Your task to perform on an android device: Clear the cart on amazon. Search for "lenovo thinkpad" on amazon, select the first entry, add it to the cart, then select checkout. Image 0: 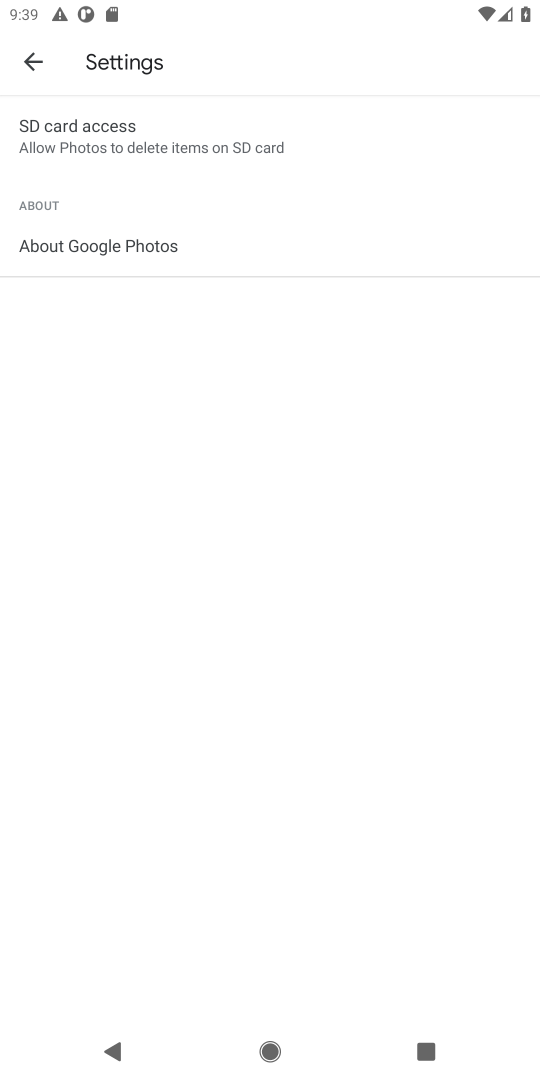
Step 0: press home button
Your task to perform on an android device: Clear the cart on amazon. Search for "lenovo thinkpad" on amazon, select the first entry, add it to the cart, then select checkout. Image 1: 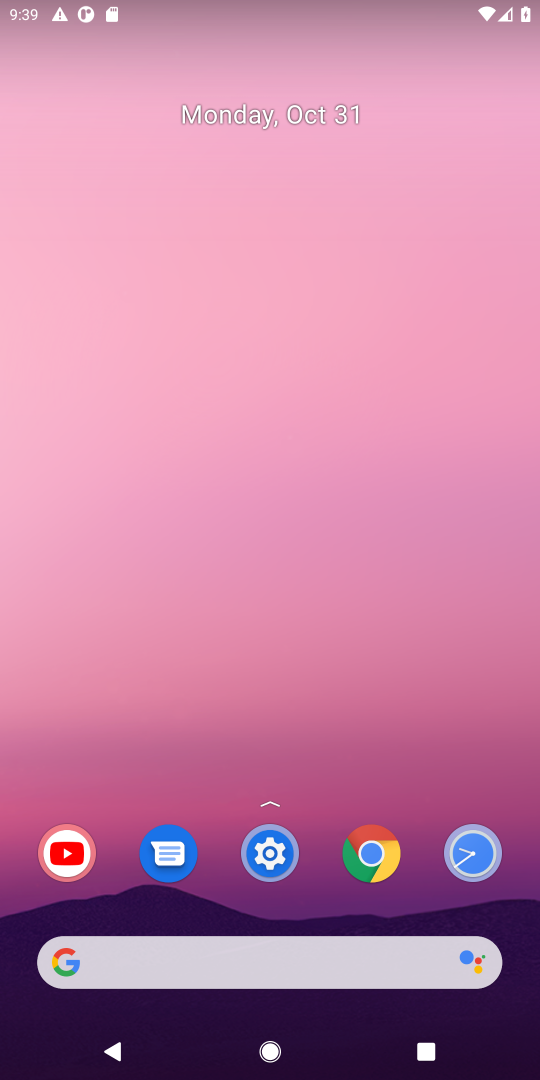
Step 1: click (384, 952)
Your task to perform on an android device: Clear the cart on amazon. Search for "lenovo thinkpad" on amazon, select the first entry, add it to the cart, then select checkout. Image 2: 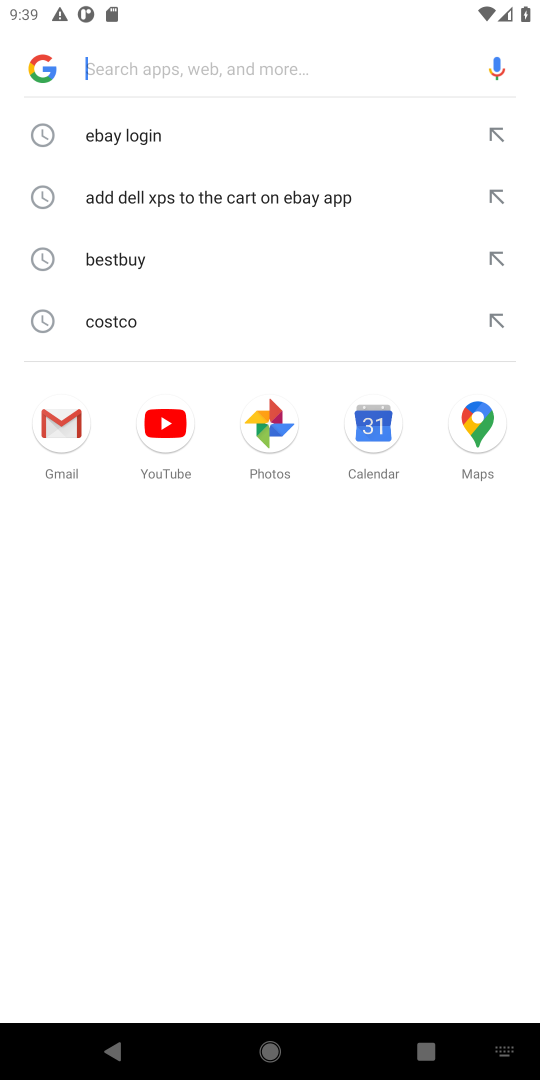
Step 2: type "amazon"
Your task to perform on an android device: Clear the cart on amazon. Search for "lenovo thinkpad" on amazon, select the first entry, add it to the cart, then select checkout. Image 3: 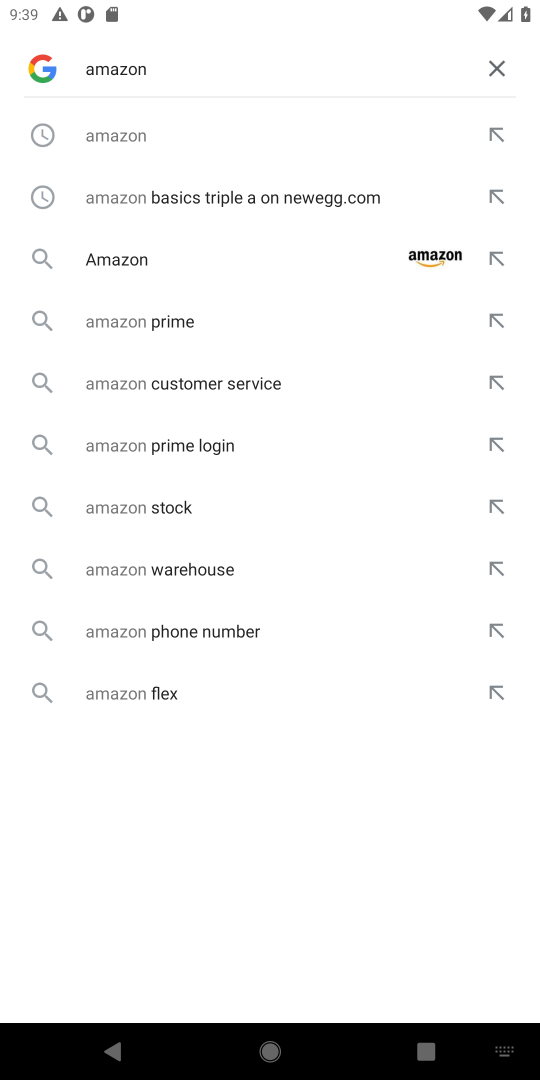
Step 3: click (112, 138)
Your task to perform on an android device: Clear the cart on amazon. Search for "lenovo thinkpad" on amazon, select the first entry, add it to the cart, then select checkout. Image 4: 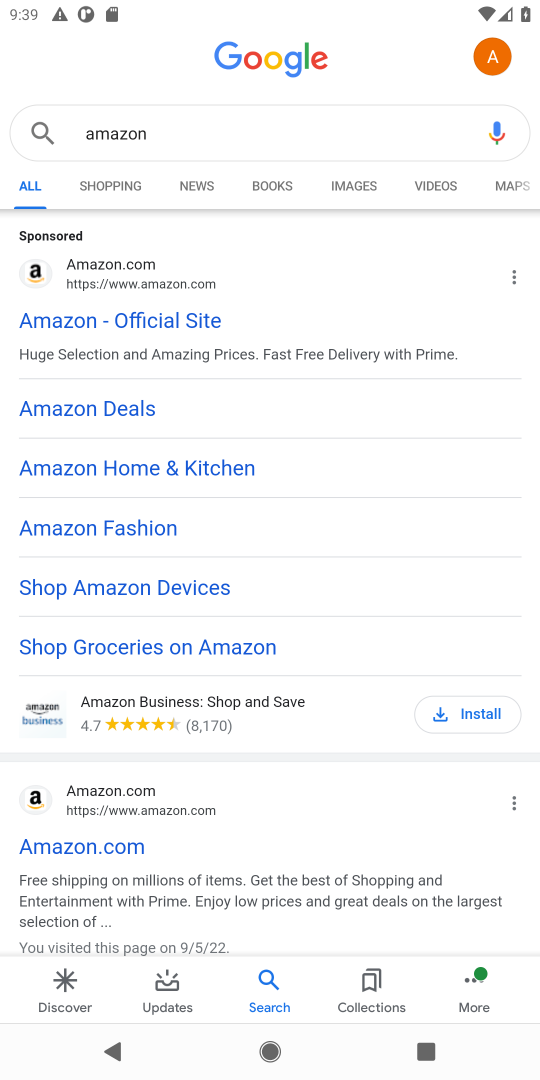
Step 4: click (82, 323)
Your task to perform on an android device: Clear the cart on amazon. Search for "lenovo thinkpad" on amazon, select the first entry, add it to the cart, then select checkout. Image 5: 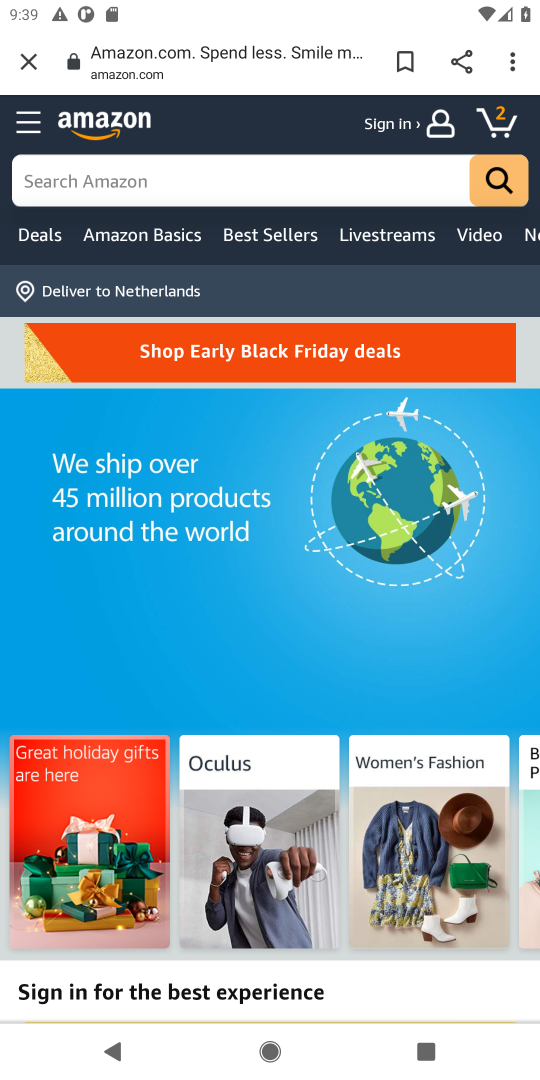
Step 5: click (500, 117)
Your task to perform on an android device: Clear the cart on amazon. Search for "lenovo thinkpad" on amazon, select the first entry, add it to the cart, then select checkout. Image 6: 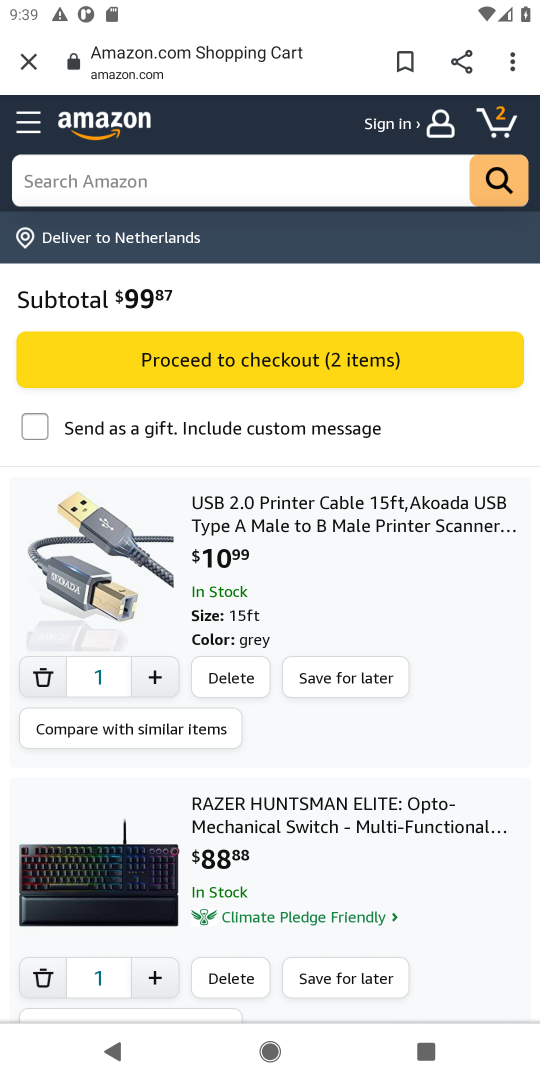
Step 6: click (42, 670)
Your task to perform on an android device: Clear the cart on amazon. Search for "lenovo thinkpad" on amazon, select the first entry, add it to the cart, then select checkout. Image 7: 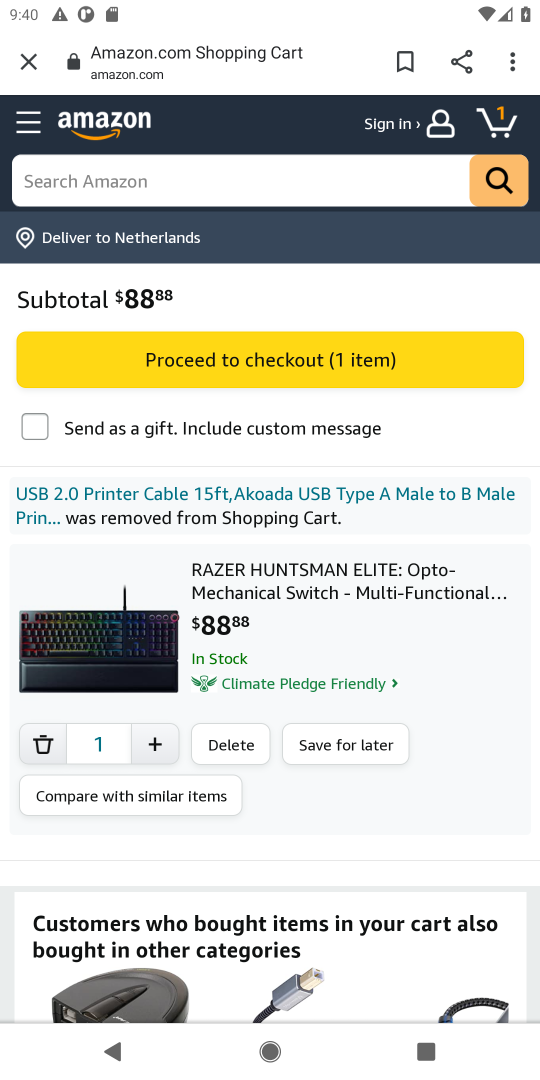
Step 7: click (37, 742)
Your task to perform on an android device: Clear the cart on amazon. Search for "lenovo thinkpad" on amazon, select the first entry, add it to the cart, then select checkout. Image 8: 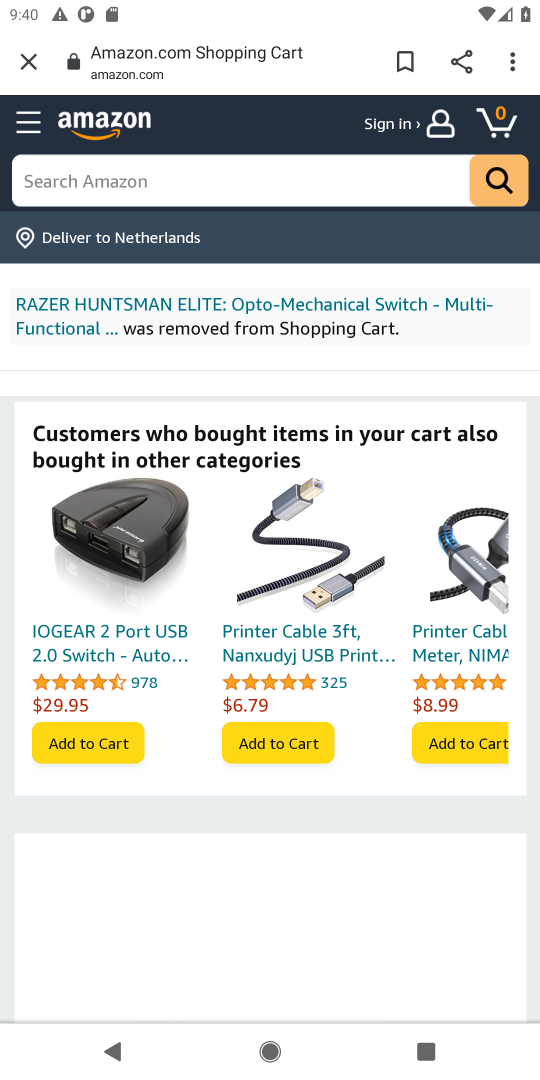
Step 8: click (198, 165)
Your task to perform on an android device: Clear the cart on amazon. Search for "lenovo thinkpad" on amazon, select the first entry, add it to the cart, then select checkout. Image 9: 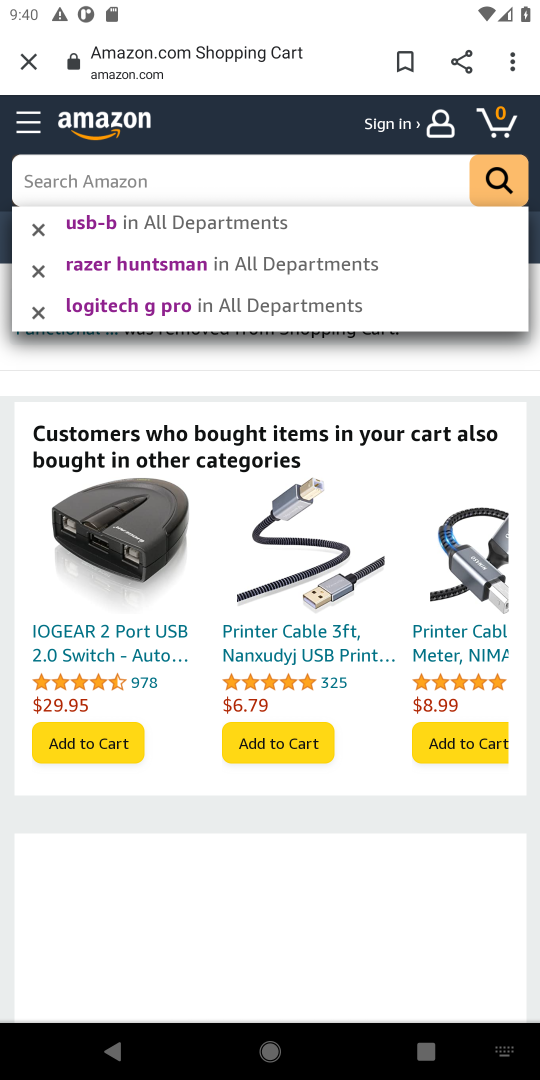
Step 9: type "lenovo thinkpad"
Your task to perform on an android device: Clear the cart on amazon. Search for "lenovo thinkpad" on amazon, select the first entry, add it to the cart, then select checkout. Image 10: 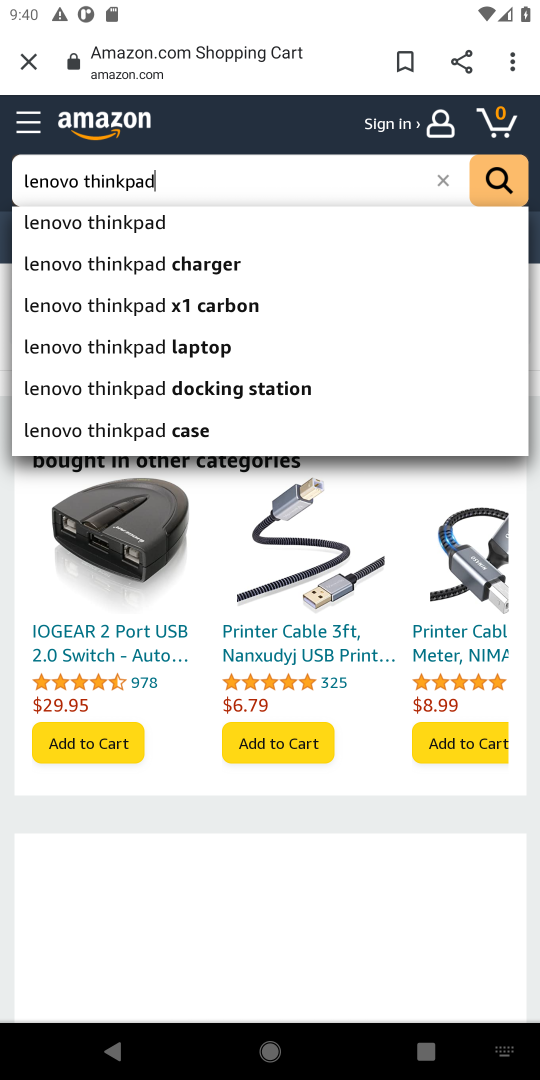
Step 10: click (117, 217)
Your task to perform on an android device: Clear the cart on amazon. Search for "lenovo thinkpad" on amazon, select the first entry, add it to the cart, then select checkout. Image 11: 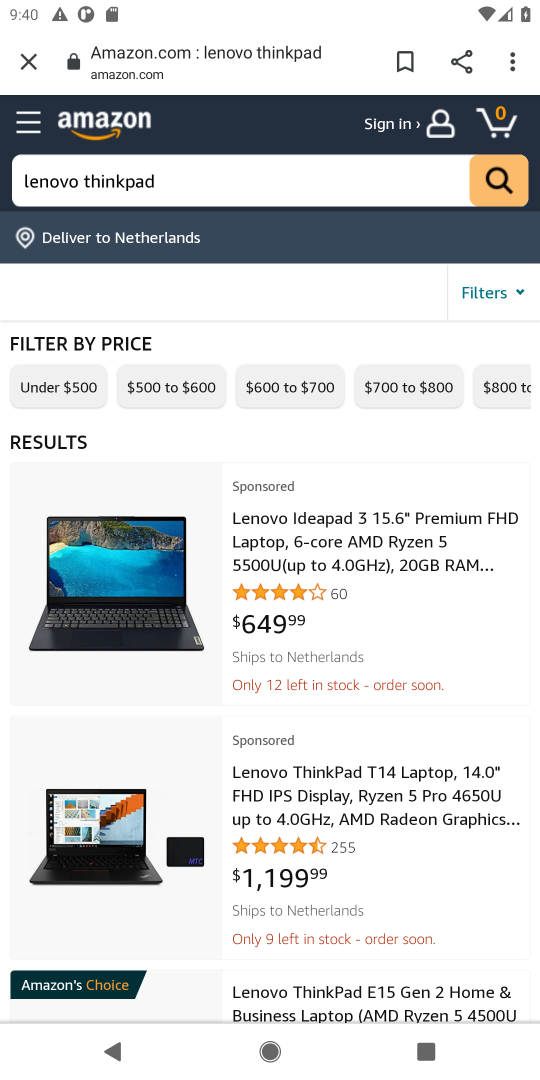
Step 11: click (355, 544)
Your task to perform on an android device: Clear the cart on amazon. Search for "lenovo thinkpad" on amazon, select the first entry, add it to the cart, then select checkout. Image 12: 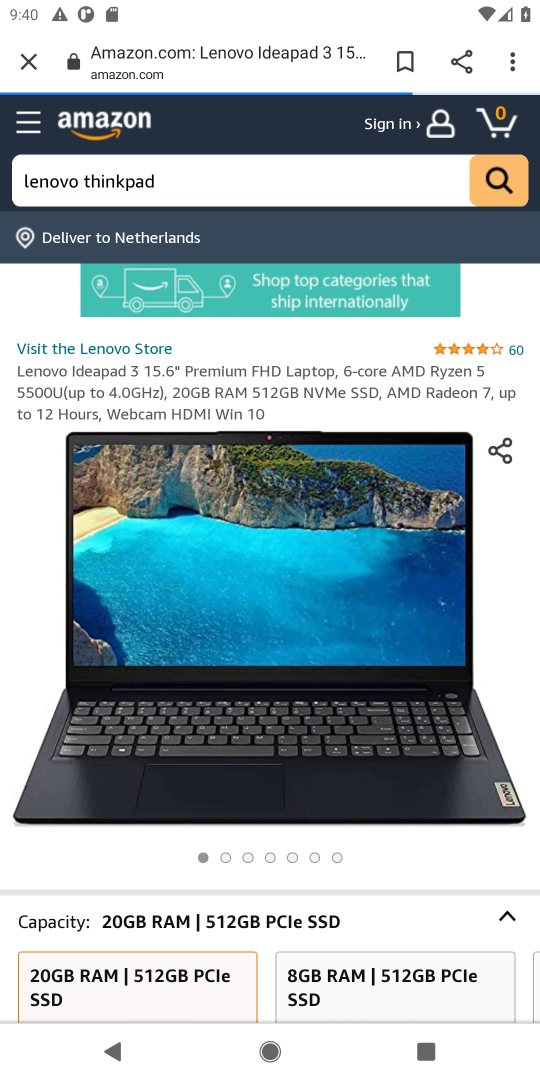
Step 12: drag from (391, 871) to (346, 578)
Your task to perform on an android device: Clear the cart on amazon. Search for "lenovo thinkpad" on amazon, select the first entry, add it to the cart, then select checkout. Image 13: 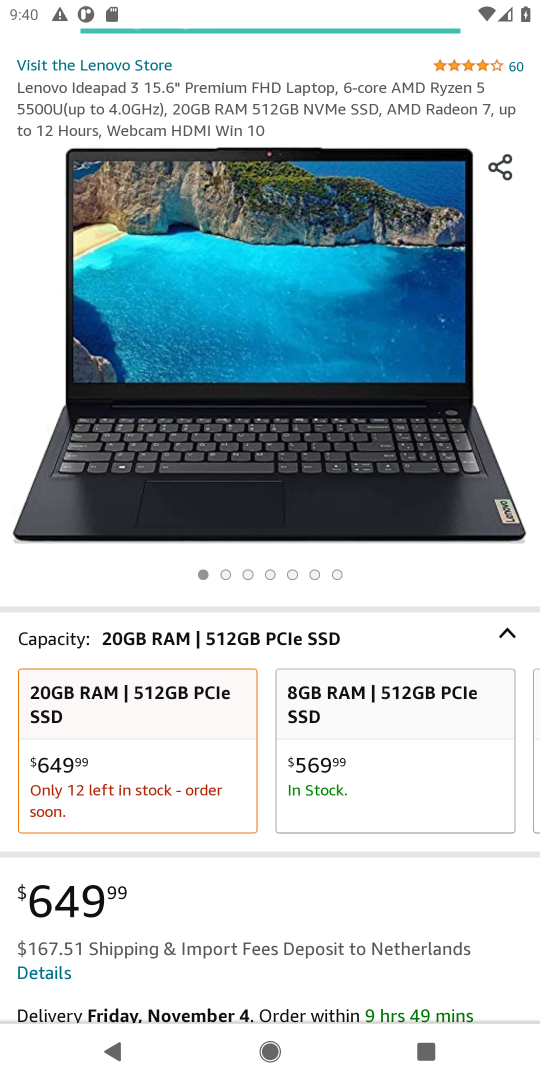
Step 13: drag from (332, 862) to (278, 516)
Your task to perform on an android device: Clear the cart on amazon. Search for "lenovo thinkpad" on amazon, select the first entry, add it to the cart, then select checkout. Image 14: 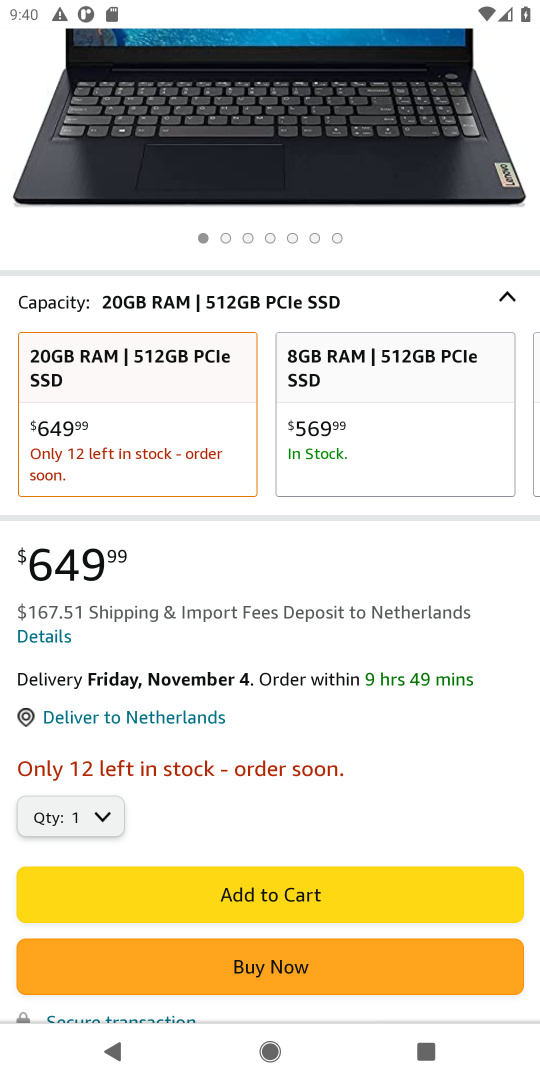
Step 14: click (275, 894)
Your task to perform on an android device: Clear the cart on amazon. Search for "lenovo thinkpad" on amazon, select the first entry, add it to the cart, then select checkout. Image 15: 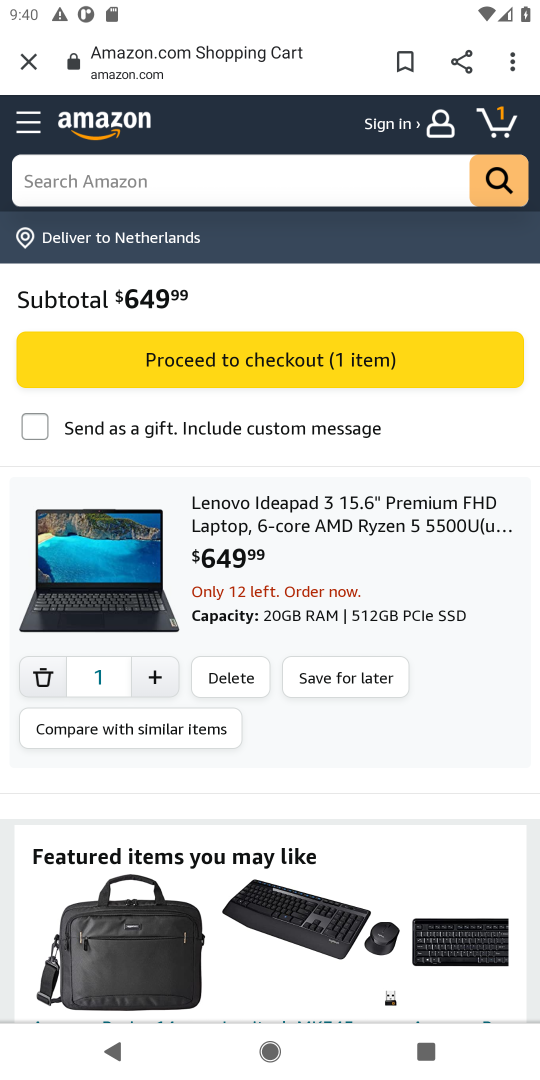
Step 15: click (501, 113)
Your task to perform on an android device: Clear the cart on amazon. Search for "lenovo thinkpad" on amazon, select the first entry, add it to the cart, then select checkout. Image 16: 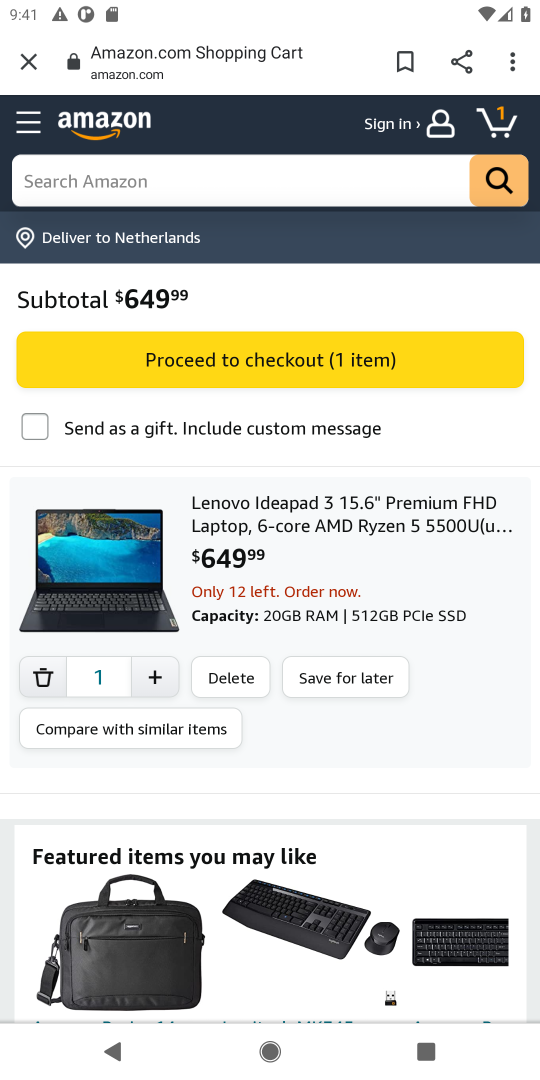
Step 16: click (262, 361)
Your task to perform on an android device: Clear the cart on amazon. Search for "lenovo thinkpad" on amazon, select the first entry, add it to the cart, then select checkout. Image 17: 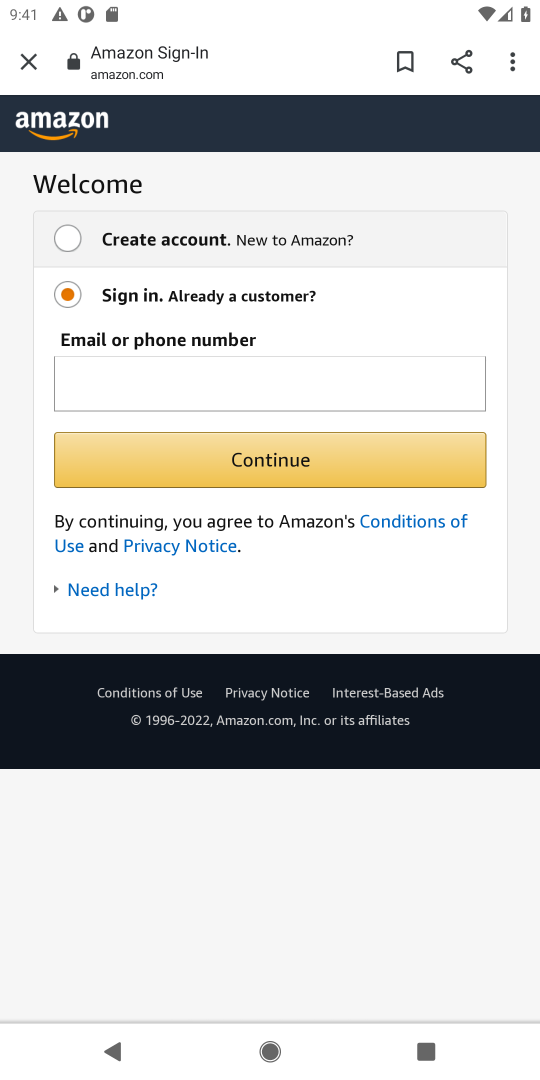
Step 17: task complete